Your task to perform on an android device: toggle notifications settings in the gmail app Image 0: 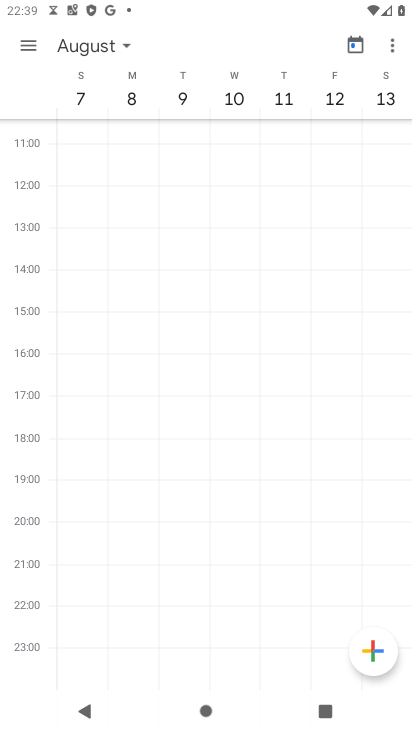
Step 0: press home button
Your task to perform on an android device: toggle notifications settings in the gmail app Image 1: 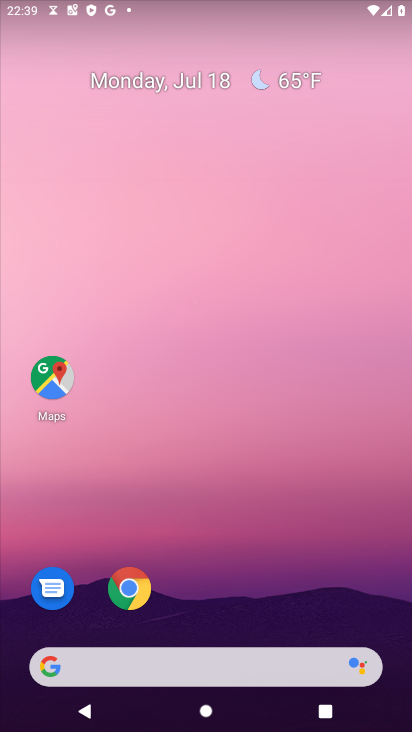
Step 1: drag from (189, 669) to (205, 136)
Your task to perform on an android device: toggle notifications settings in the gmail app Image 2: 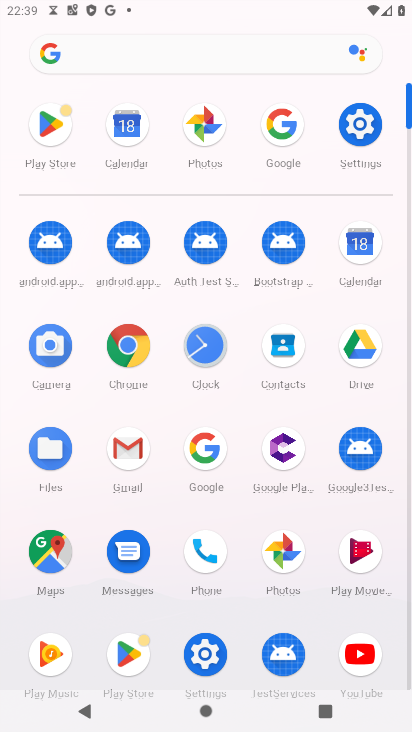
Step 2: click (126, 448)
Your task to perform on an android device: toggle notifications settings in the gmail app Image 3: 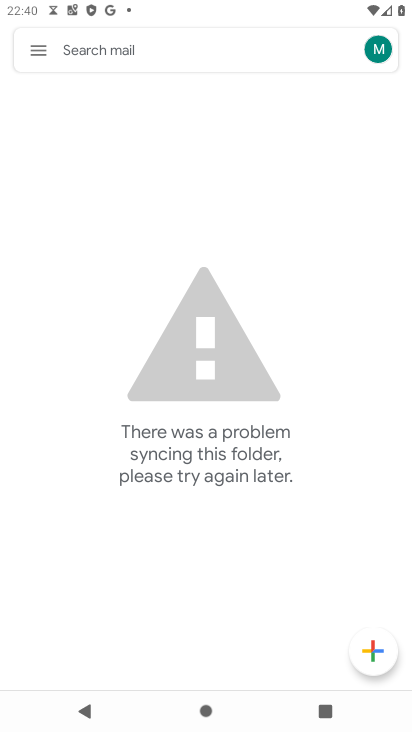
Step 3: click (42, 51)
Your task to perform on an android device: toggle notifications settings in the gmail app Image 4: 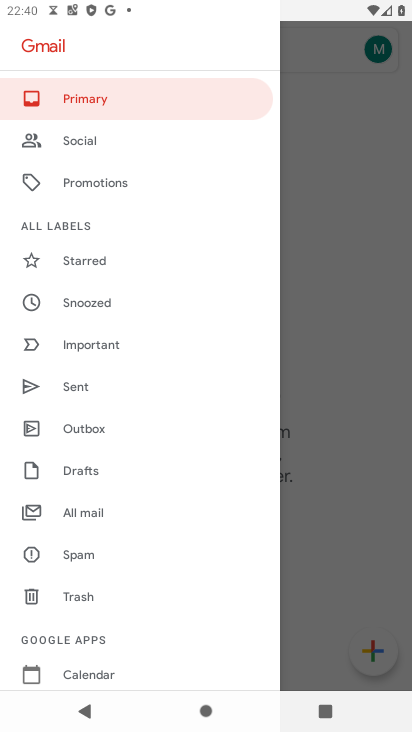
Step 4: drag from (87, 448) to (132, 381)
Your task to perform on an android device: toggle notifications settings in the gmail app Image 5: 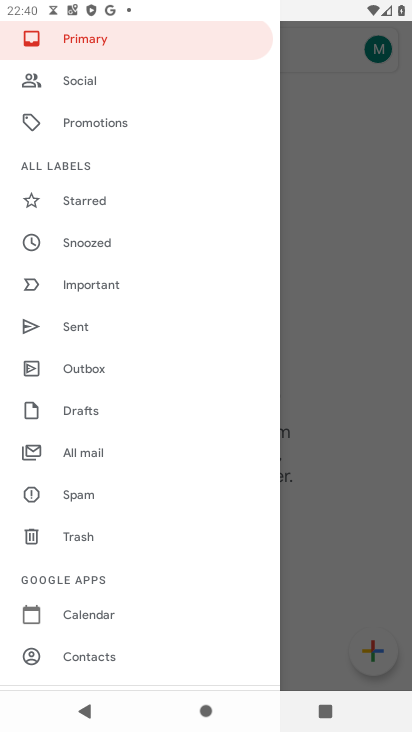
Step 5: drag from (83, 476) to (147, 393)
Your task to perform on an android device: toggle notifications settings in the gmail app Image 6: 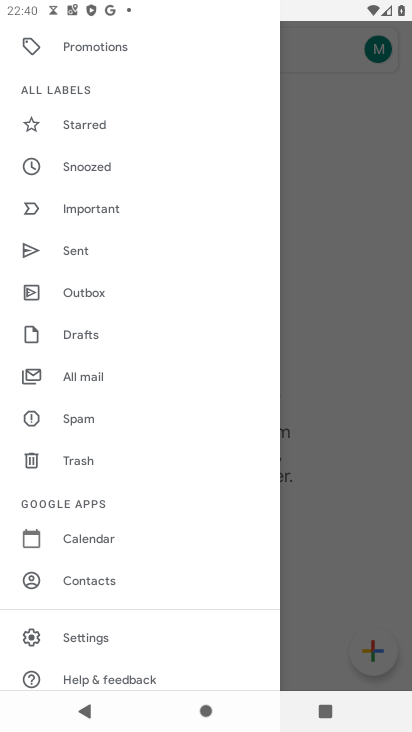
Step 6: drag from (88, 527) to (147, 413)
Your task to perform on an android device: toggle notifications settings in the gmail app Image 7: 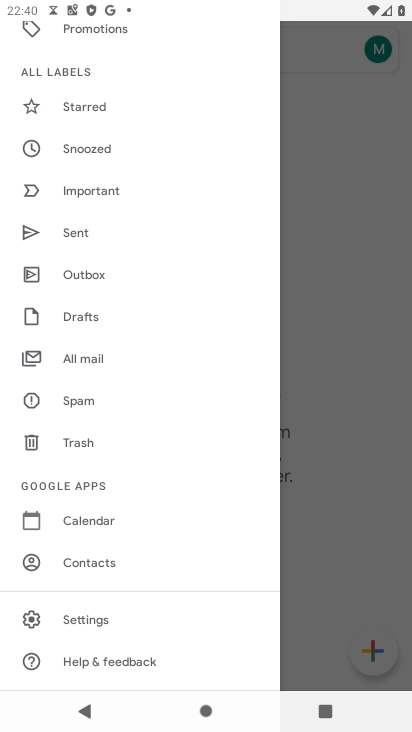
Step 7: click (92, 619)
Your task to perform on an android device: toggle notifications settings in the gmail app Image 8: 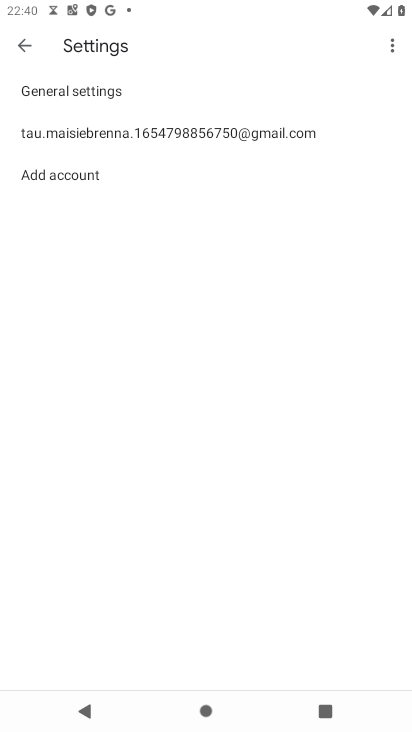
Step 8: click (238, 135)
Your task to perform on an android device: toggle notifications settings in the gmail app Image 9: 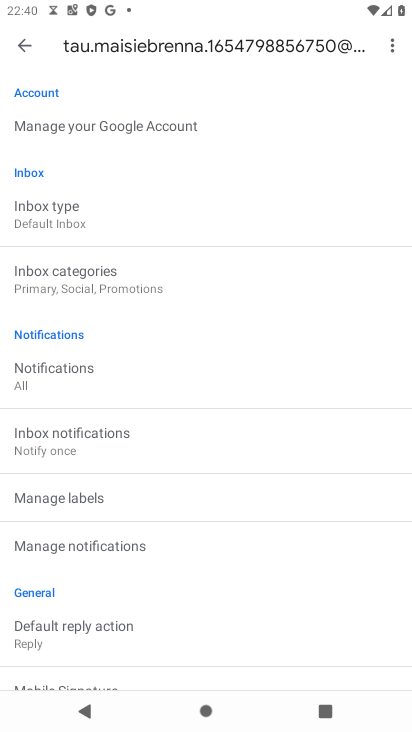
Step 9: click (119, 543)
Your task to perform on an android device: toggle notifications settings in the gmail app Image 10: 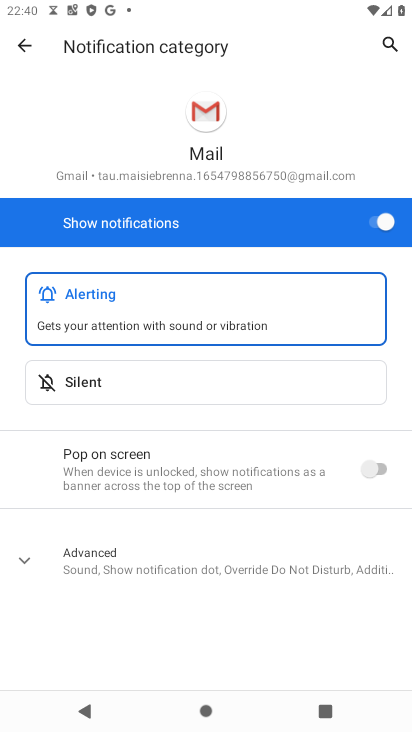
Step 10: click (382, 218)
Your task to perform on an android device: toggle notifications settings in the gmail app Image 11: 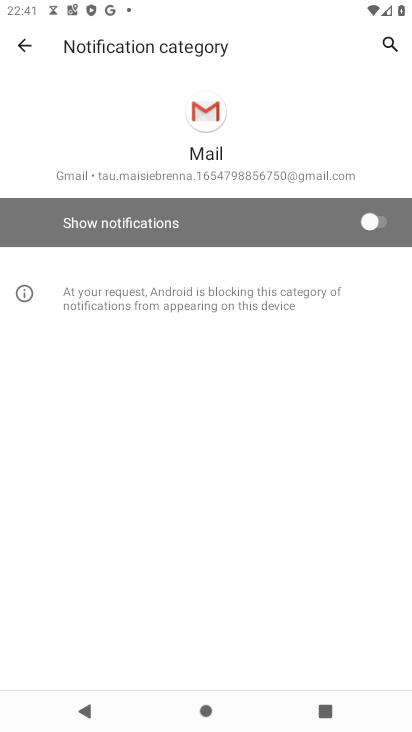
Step 11: task complete